Your task to perform on an android device: check the backup settings in the google photos Image 0: 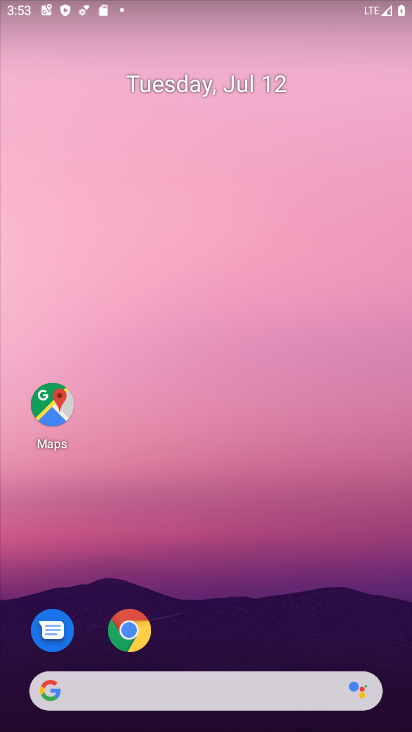
Step 0: drag from (342, 689) to (396, 5)
Your task to perform on an android device: check the backup settings in the google photos Image 1: 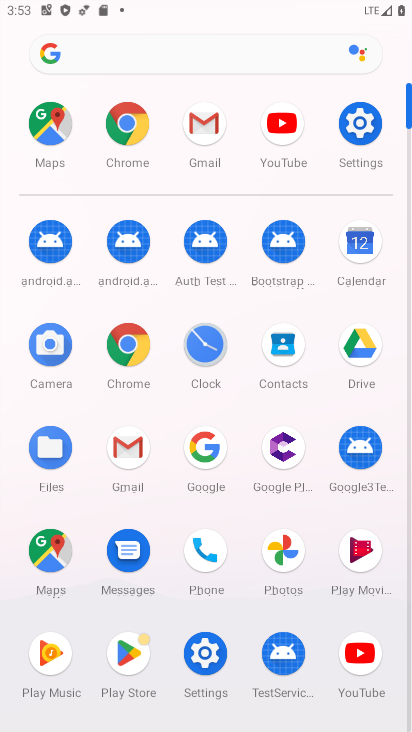
Step 1: click (289, 548)
Your task to perform on an android device: check the backup settings in the google photos Image 2: 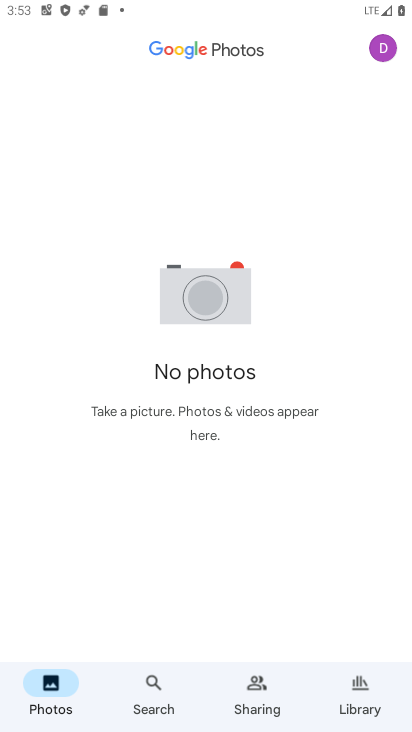
Step 2: click (383, 37)
Your task to perform on an android device: check the backup settings in the google photos Image 3: 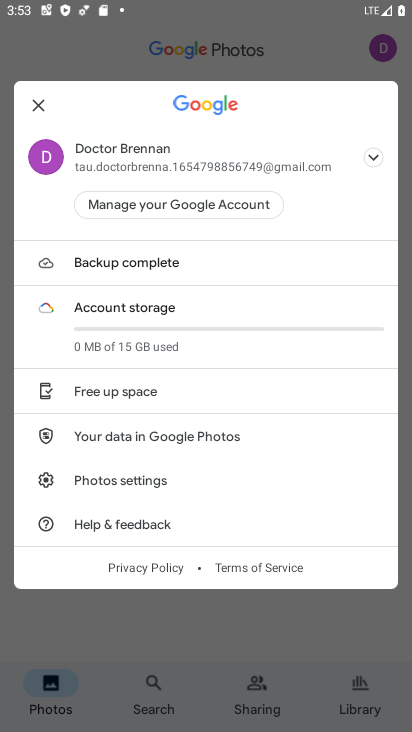
Step 3: click (133, 477)
Your task to perform on an android device: check the backup settings in the google photos Image 4: 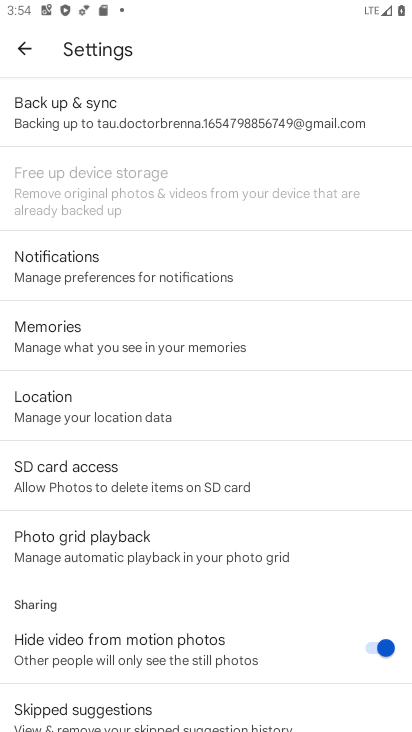
Step 4: click (130, 124)
Your task to perform on an android device: check the backup settings in the google photos Image 5: 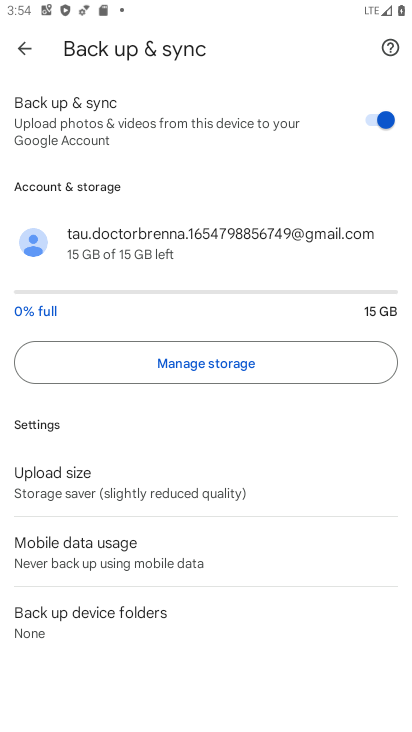
Step 5: task complete